Your task to perform on an android device: Add "macbook pro 15 inch" to the cart on bestbuy.com, then select checkout. Image 0: 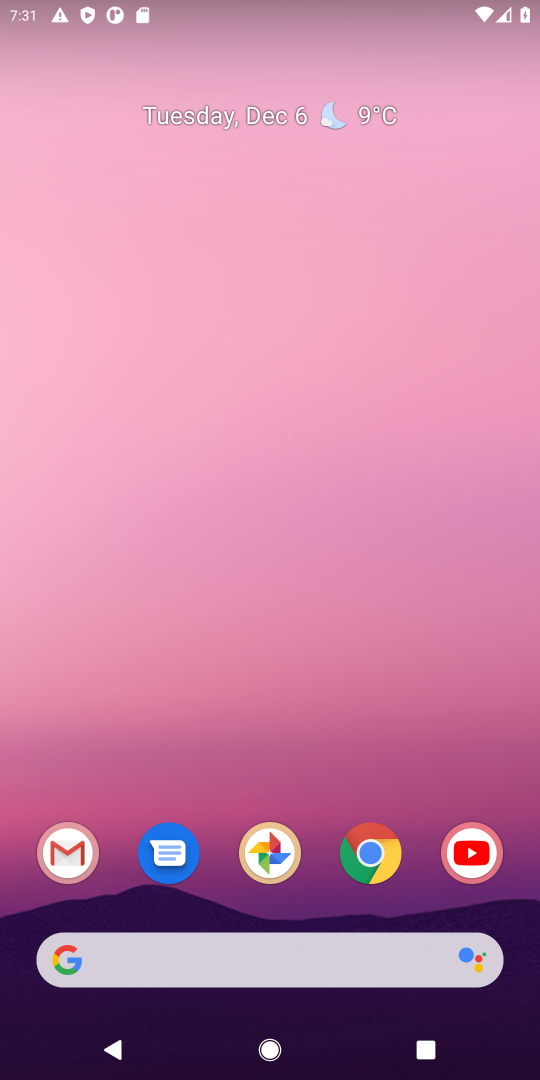
Step 0: click (364, 850)
Your task to perform on an android device: Add "macbook pro 15 inch" to the cart on bestbuy.com, then select checkout. Image 1: 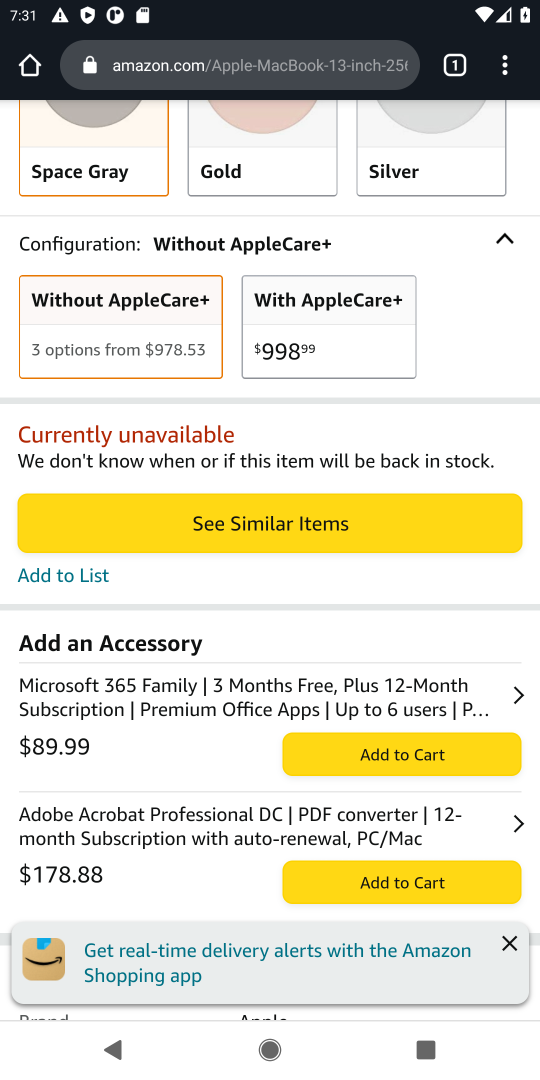
Step 1: click (243, 59)
Your task to perform on an android device: Add "macbook pro 15 inch" to the cart on bestbuy.com, then select checkout. Image 2: 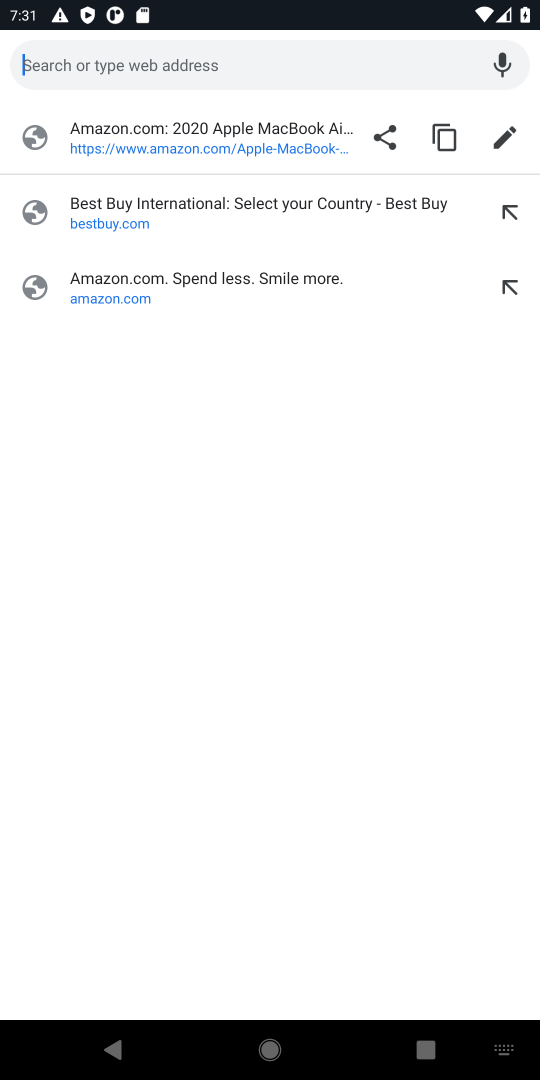
Step 2: click (239, 210)
Your task to perform on an android device: Add "macbook pro 15 inch" to the cart on bestbuy.com, then select checkout. Image 3: 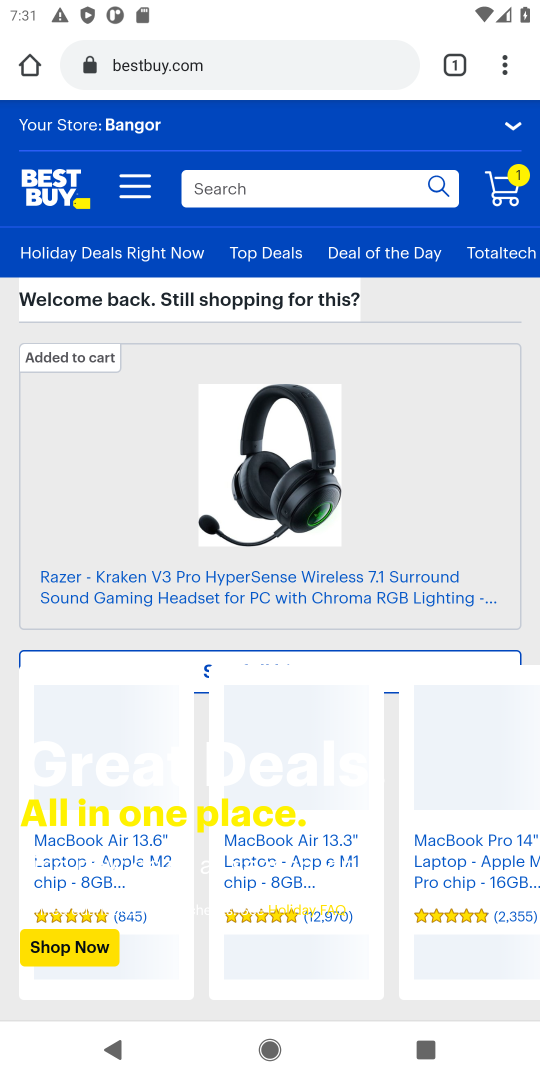
Step 3: click (271, 187)
Your task to perform on an android device: Add "macbook pro 15 inch" to the cart on bestbuy.com, then select checkout. Image 4: 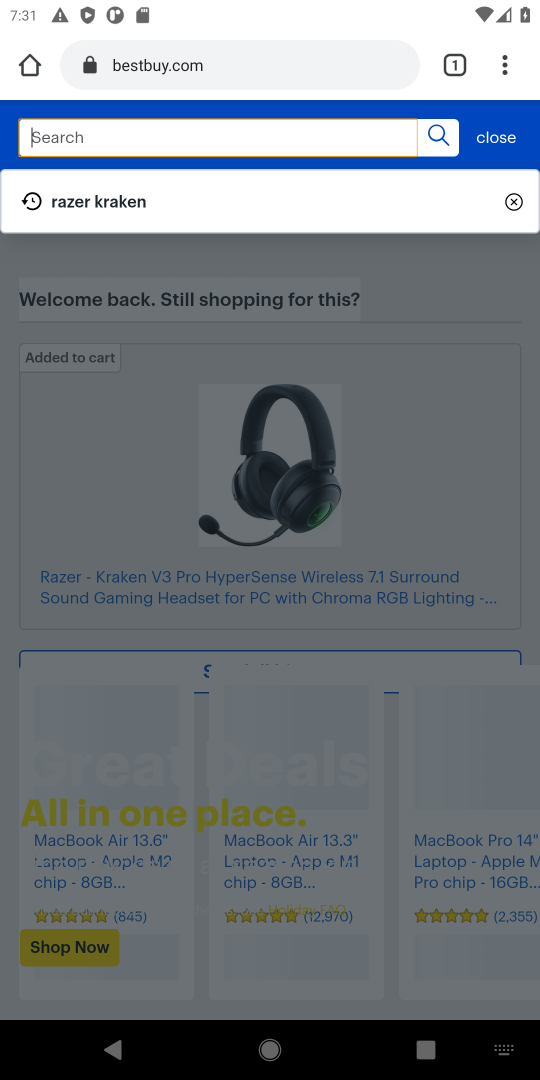
Step 4: type "macbook pro 15 inch"
Your task to perform on an android device: Add "macbook pro 15 inch" to the cart on bestbuy.com, then select checkout. Image 5: 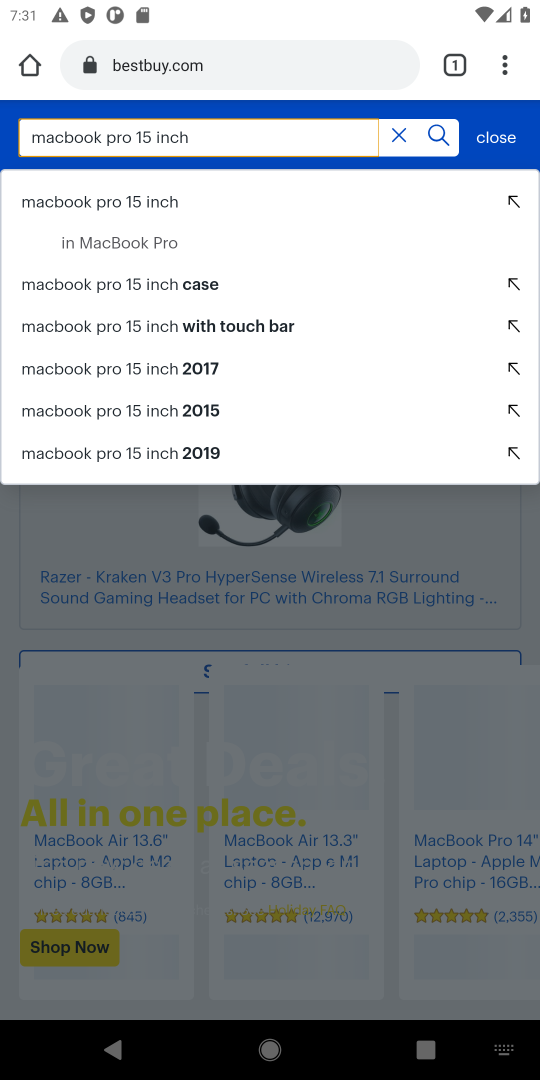
Step 5: click (149, 198)
Your task to perform on an android device: Add "macbook pro 15 inch" to the cart on bestbuy.com, then select checkout. Image 6: 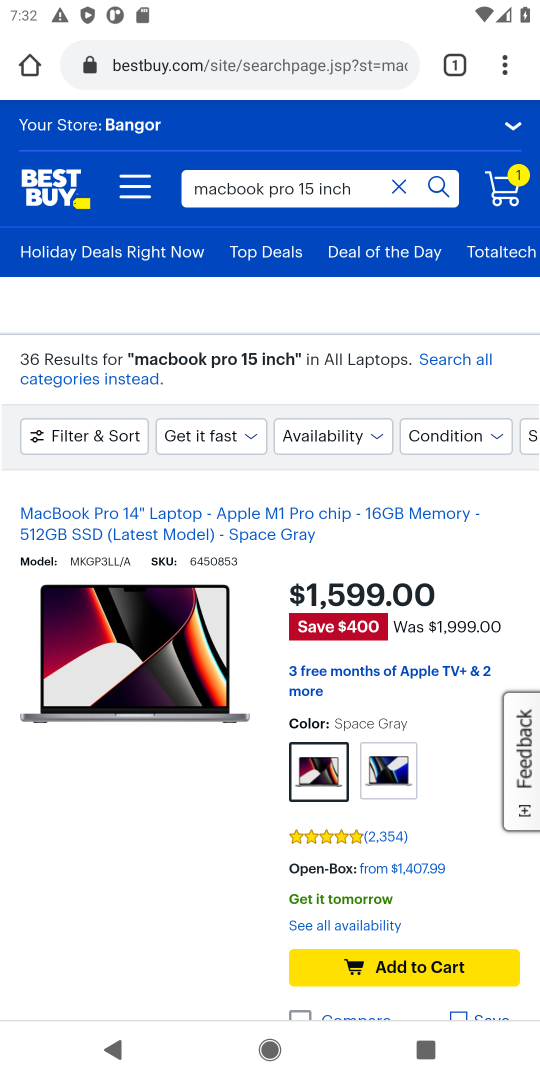
Step 6: click (413, 973)
Your task to perform on an android device: Add "macbook pro 15 inch" to the cart on bestbuy.com, then select checkout. Image 7: 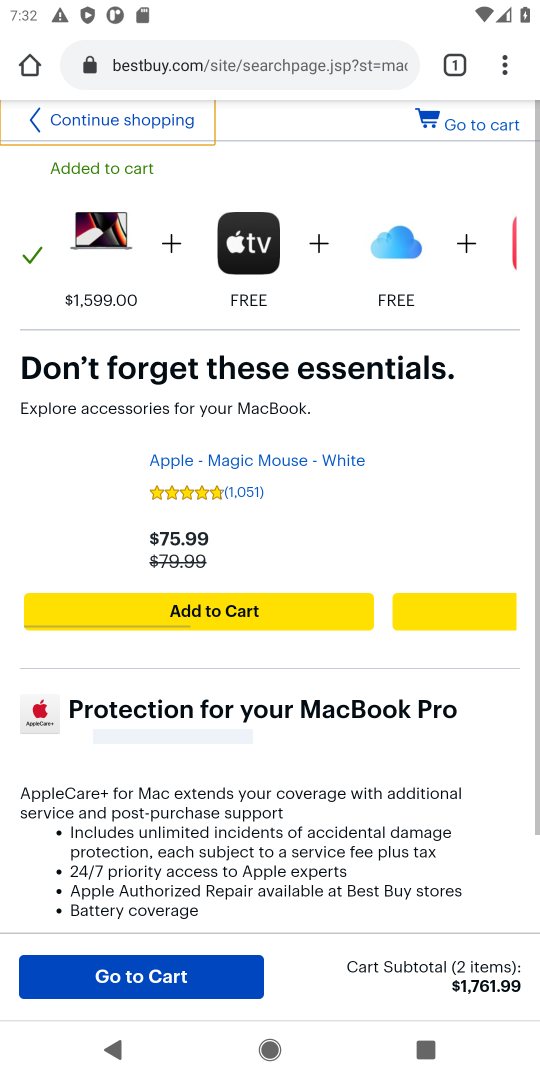
Step 7: click (145, 977)
Your task to perform on an android device: Add "macbook pro 15 inch" to the cart on bestbuy.com, then select checkout. Image 8: 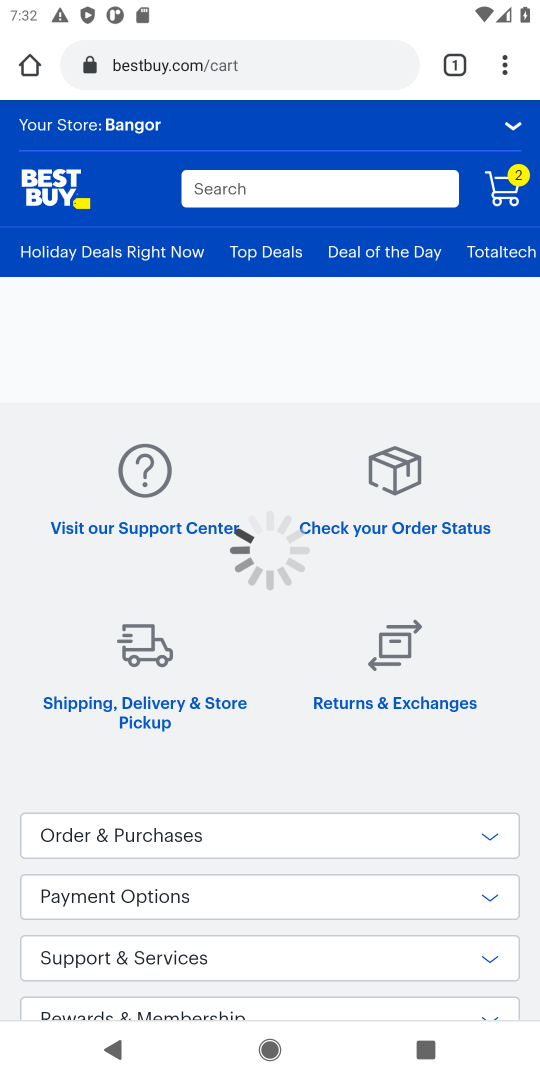
Step 8: click (521, 184)
Your task to perform on an android device: Add "macbook pro 15 inch" to the cart on bestbuy.com, then select checkout. Image 9: 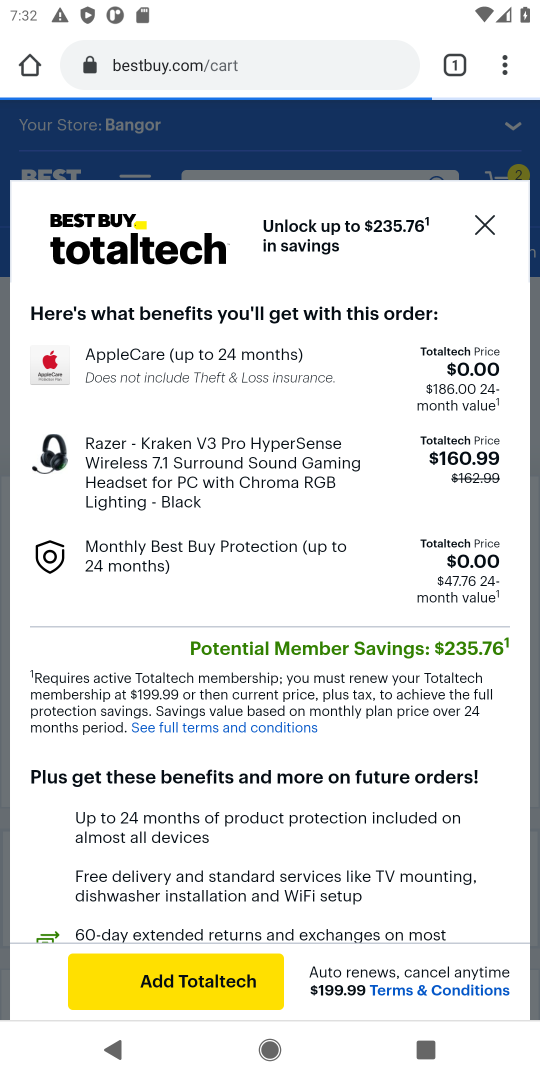
Step 9: click (281, 740)
Your task to perform on an android device: Add "macbook pro 15 inch" to the cart on bestbuy.com, then select checkout. Image 10: 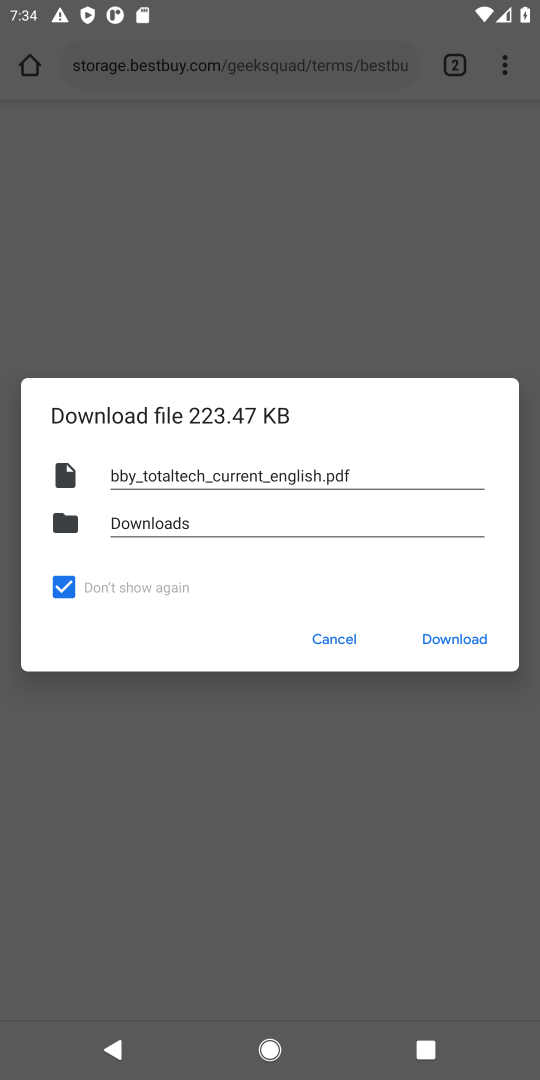
Step 10: click (340, 636)
Your task to perform on an android device: Add "macbook pro 15 inch" to the cart on bestbuy.com, then select checkout. Image 11: 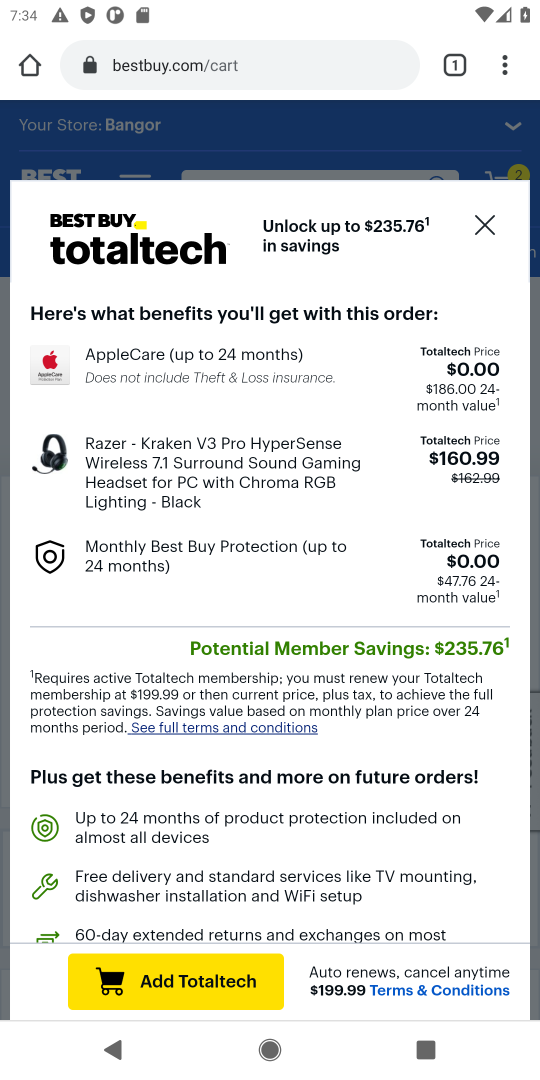
Step 11: click (481, 223)
Your task to perform on an android device: Add "macbook pro 15 inch" to the cart on bestbuy.com, then select checkout. Image 12: 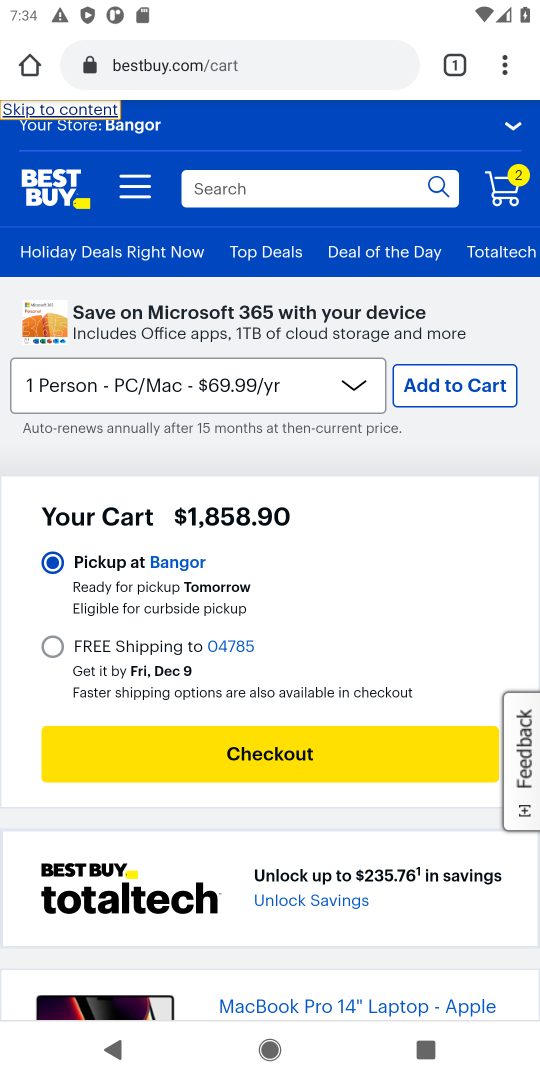
Step 12: click (255, 763)
Your task to perform on an android device: Add "macbook pro 15 inch" to the cart on bestbuy.com, then select checkout. Image 13: 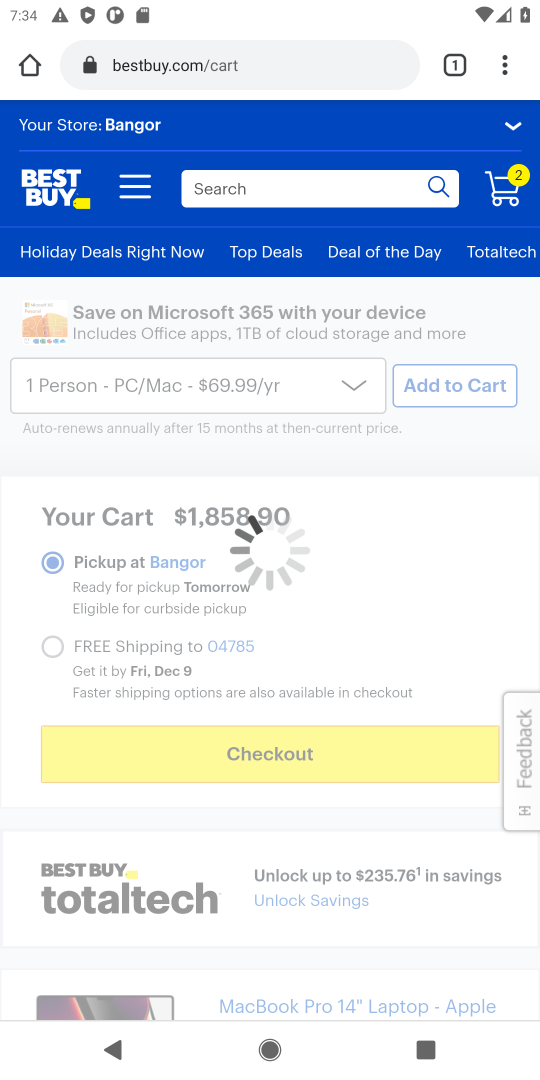
Step 13: task complete